Your task to perform on an android device: turn notification dots on Image 0: 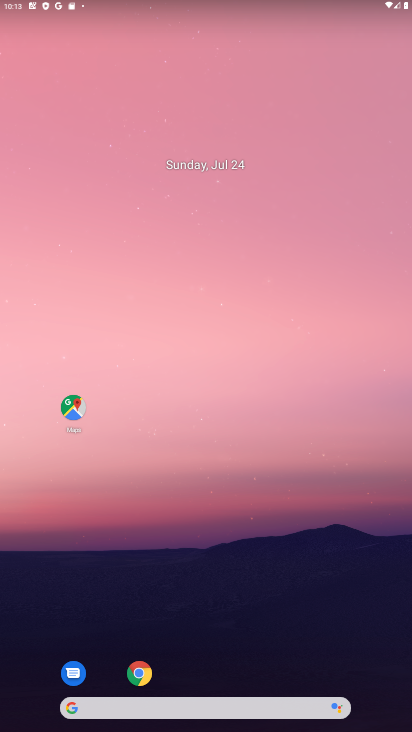
Step 0: drag from (58, 693) to (219, 61)
Your task to perform on an android device: turn notification dots on Image 1: 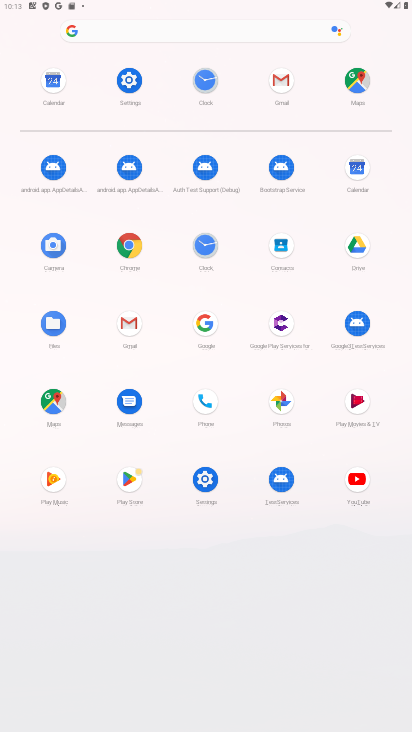
Step 1: click (210, 479)
Your task to perform on an android device: turn notification dots on Image 2: 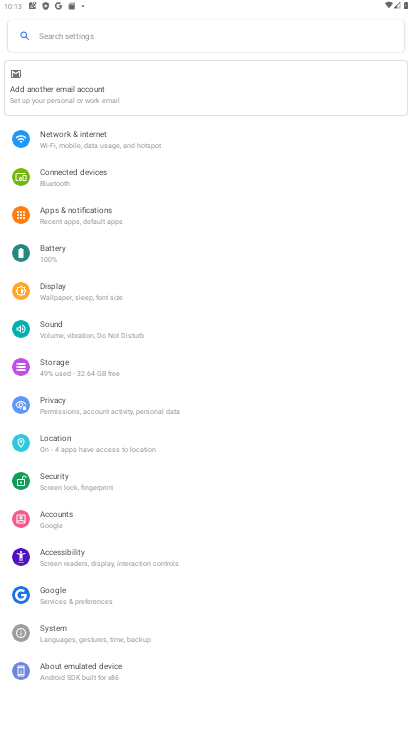
Step 2: click (104, 213)
Your task to perform on an android device: turn notification dots on Image 3: 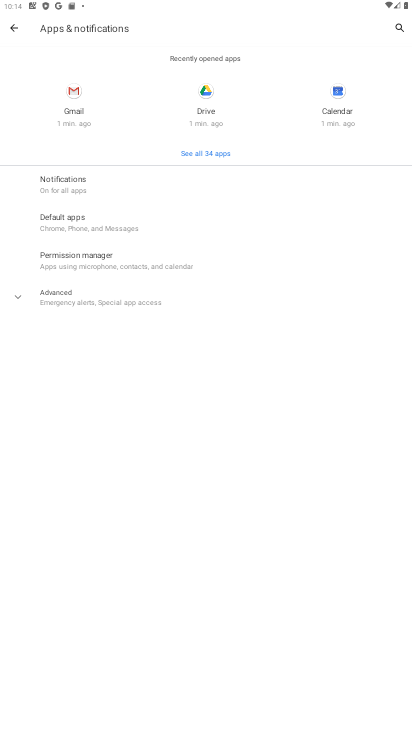
Step 3: click (78, 195)
Your task to perform on an android device: turn notification dots on Image 4: 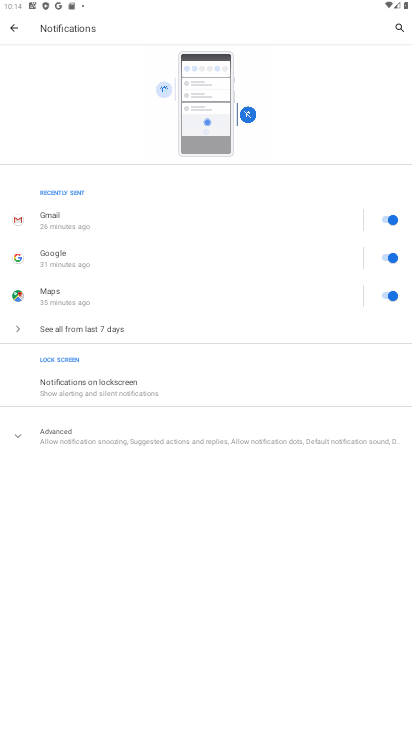
Step 4: click (108, 439)
Your task to perform on an android device: turn notification dots on Image 5: 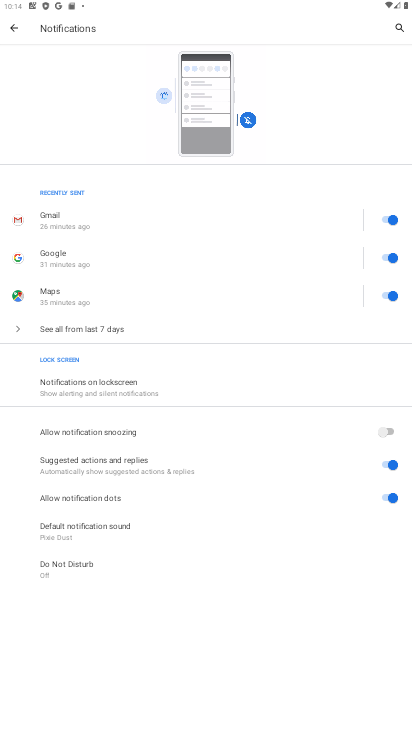
Step 5: task complete